Your task to perform on an android device: turn on the 12-hour format for clock Image 0: 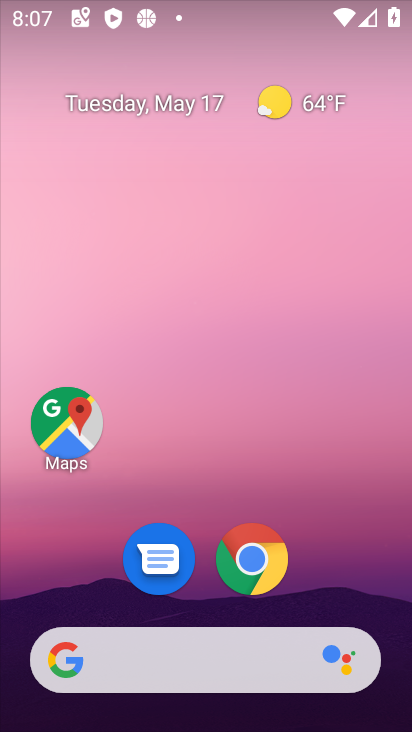
Step 0: drag from (213, 594) to (171, 31)
Your task to perform on an android device: turn on the 12-hour format for clock Image 1: 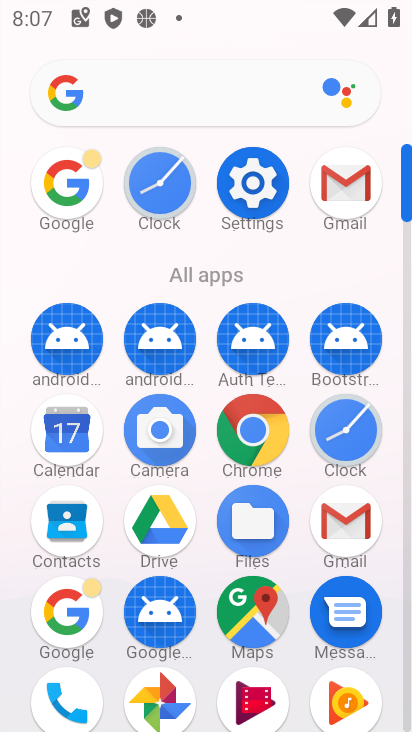
Step 1: click (338, 453)
Your task to perform on an android device: turn on the 12-hour format for clock Image 2: 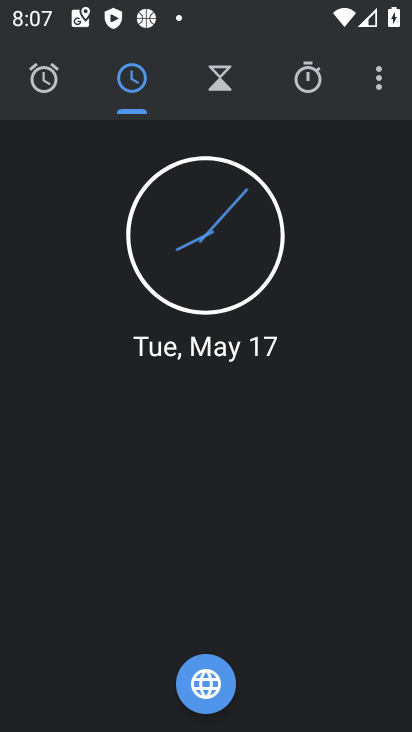
Step 2: click (374, 85)
Your task to perform on an android device: turn on the 12-hour format for clock Image 3: 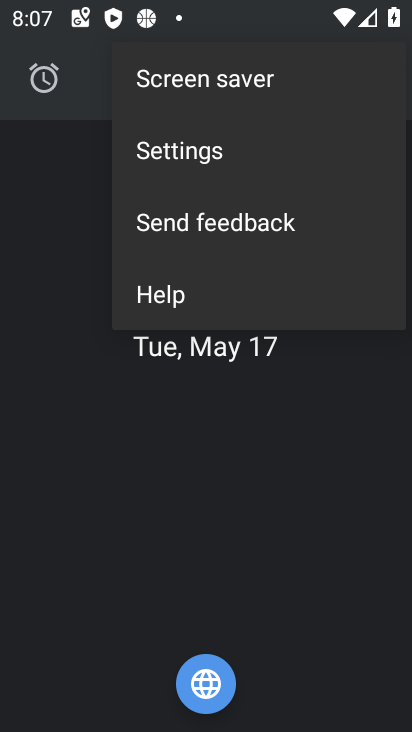
Step 3: click (160, 171)
Your task to perform on an android device: turn on the 12-hour format for clock Image 4: 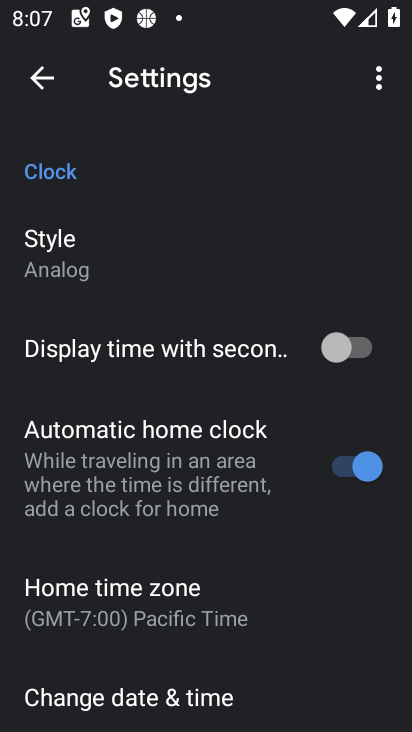
Step 4: drag from (142, 583) to (126, 388)
Your task to perform on an android device: turn on the 12-hour format for clock Image 5: 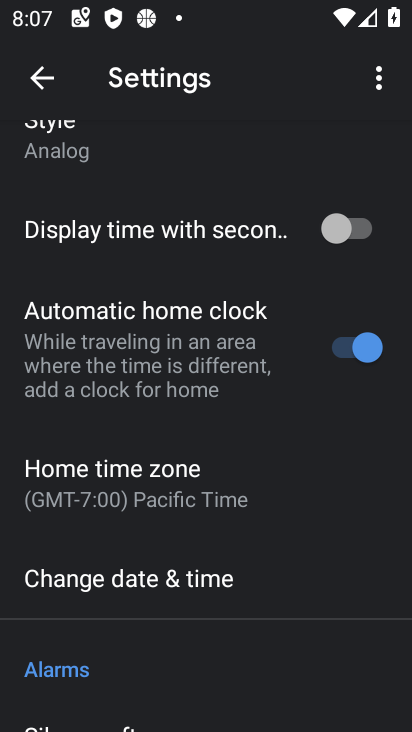
Step 5: click (131, 590)
Your task to perform on an android device: turn on the 12-hour format for clock Image 6: 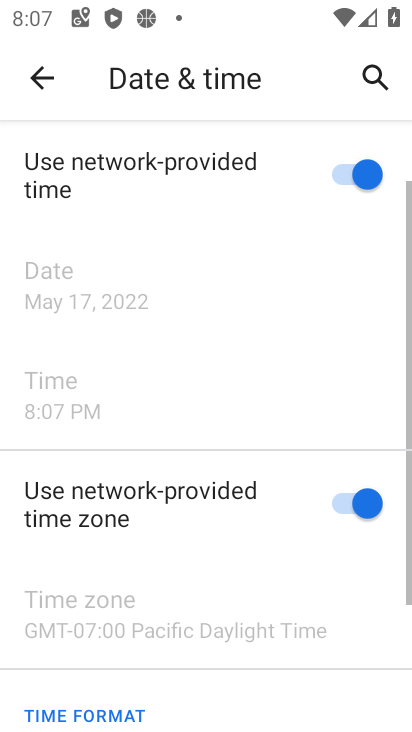
Step 6: task complete